Your task to perform on an android device: Add "razer nari" to the cart on walmart, then select checkout. Image 0: 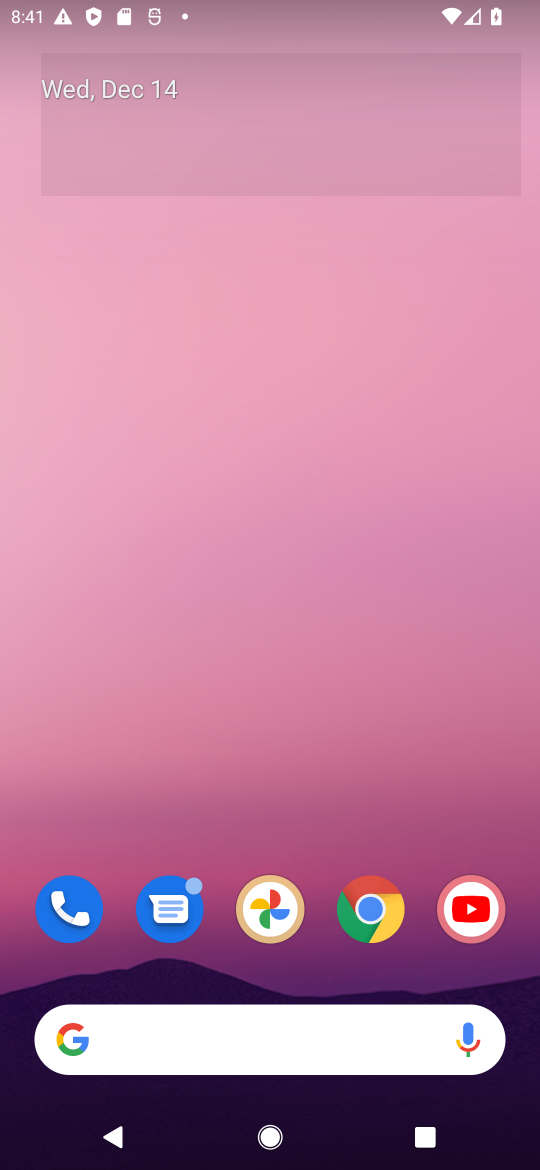
Step 0: click (385, 917)
Your task to perform on an android device: Add "razer nari" to the cart on walmart, then select checkout. Image 1: 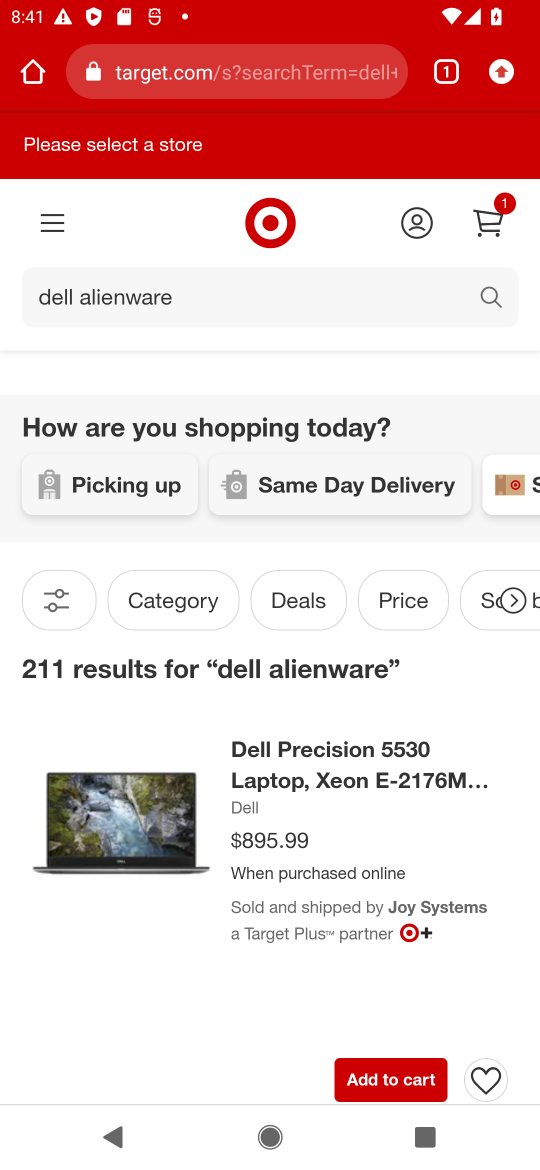
Step 1: click (239, 95)
Your task to perform on an android device: Add "razer nari" to the cart on walmart, then select checkout. Image 2: 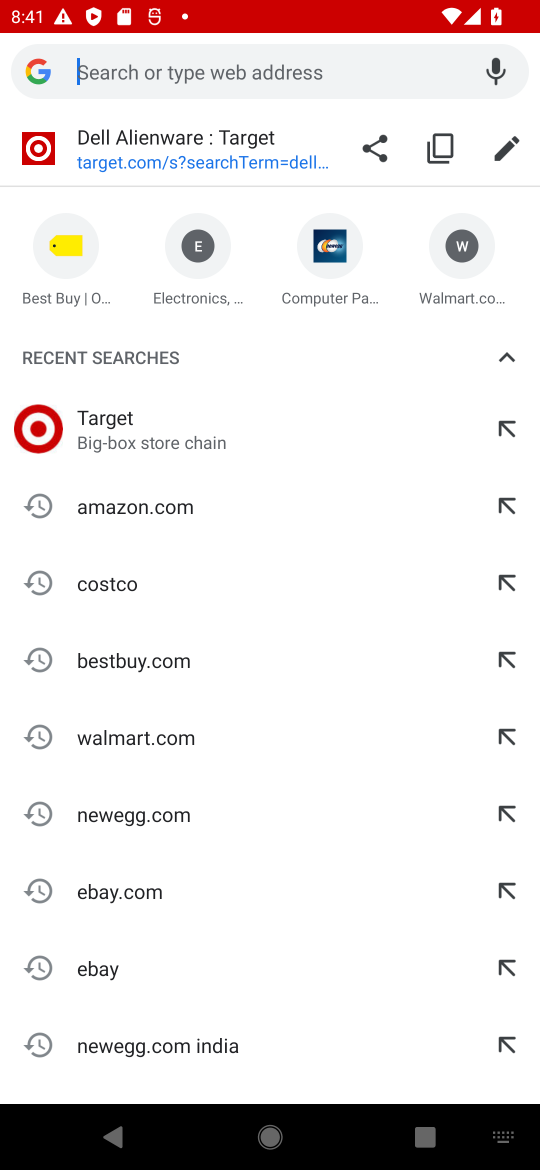
Step 2: type "walmart"
Your task to perform on an android device: Add "razer nari" to the cart on walmart, then select checkout. Image 3: 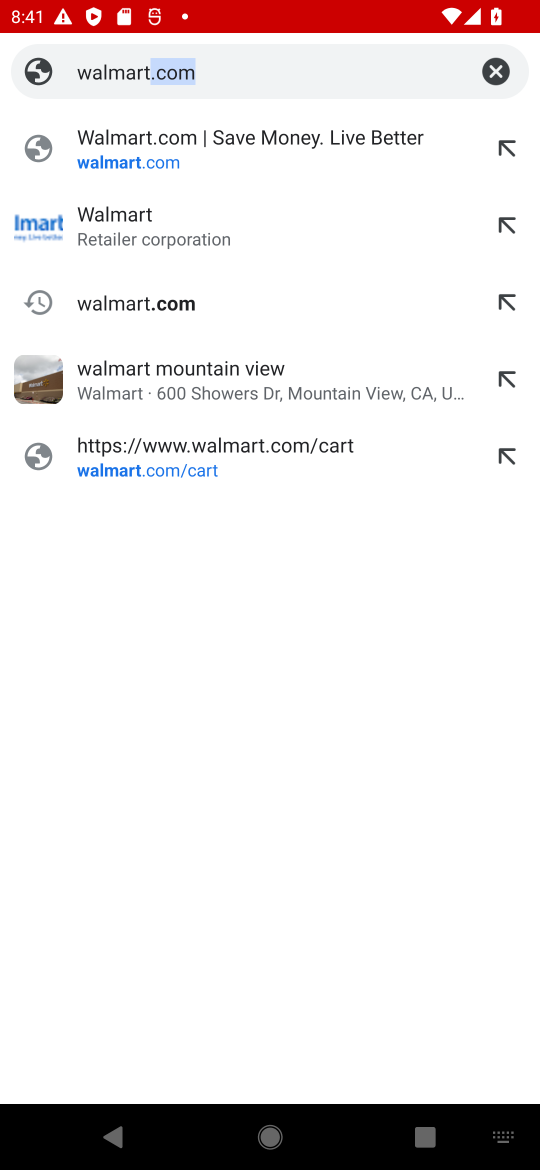
Step 3: click (215, 173)
Your task to perform on an android device: Add "razer nari" to the cart on walmart, then select checkout. Image 4: 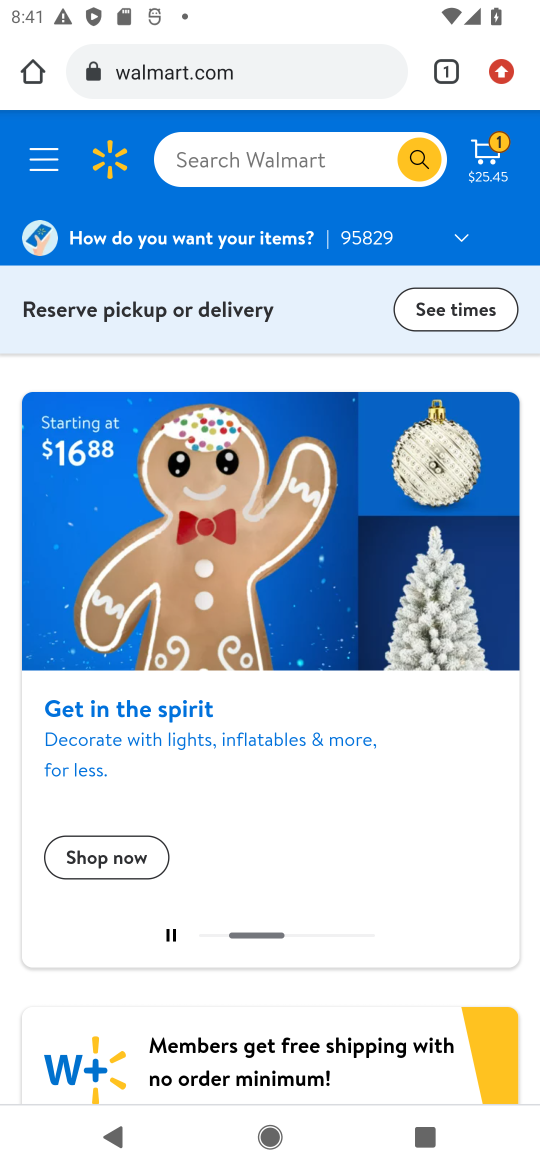
Step 4: click (288, 179)
Your task to perform on an android device: Add "razer nari" to the cart on walmart, then select checkout. Image 5: 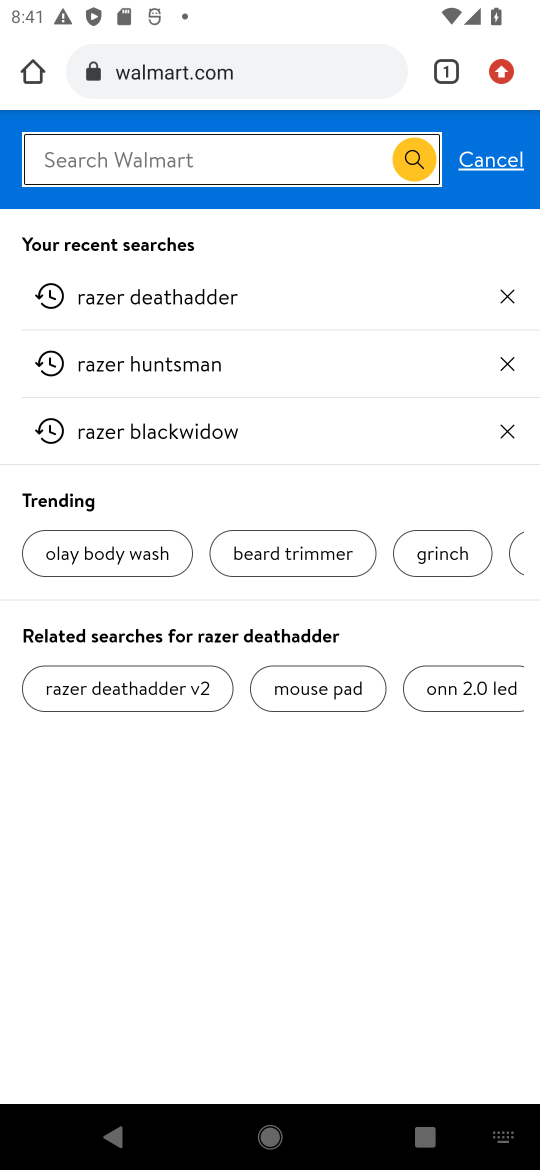
Step 5: type "razer nari"
Your task to perform on an android device: Add "razer nari" to the cart on walmart, then select checkout. Image 6: 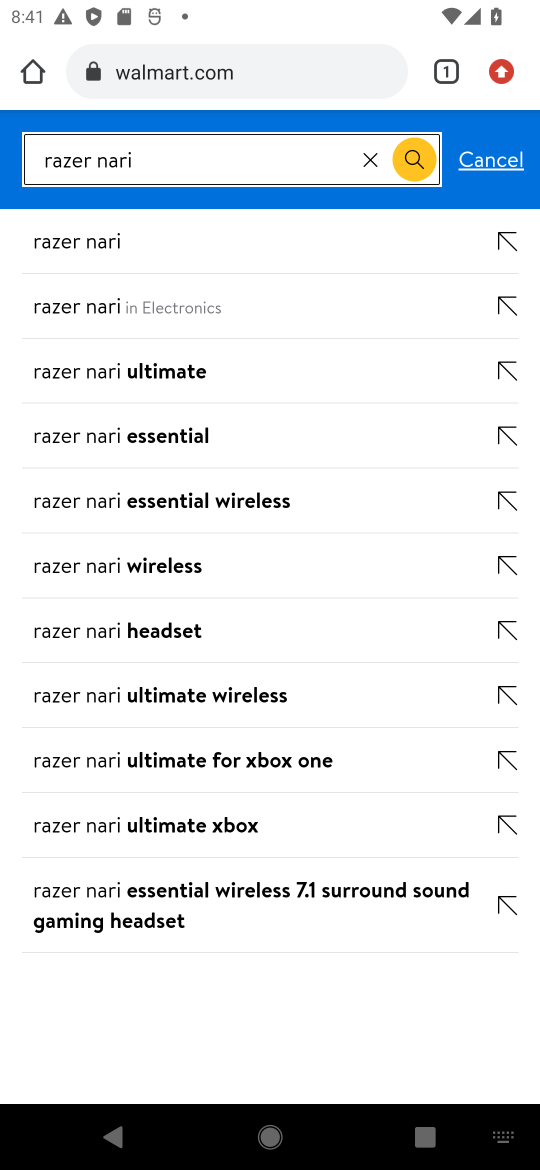
Step 6: press enter
Your task to perform on an android device: Add "razer nari" to the cart on walmart, then select checkout. Image 7: 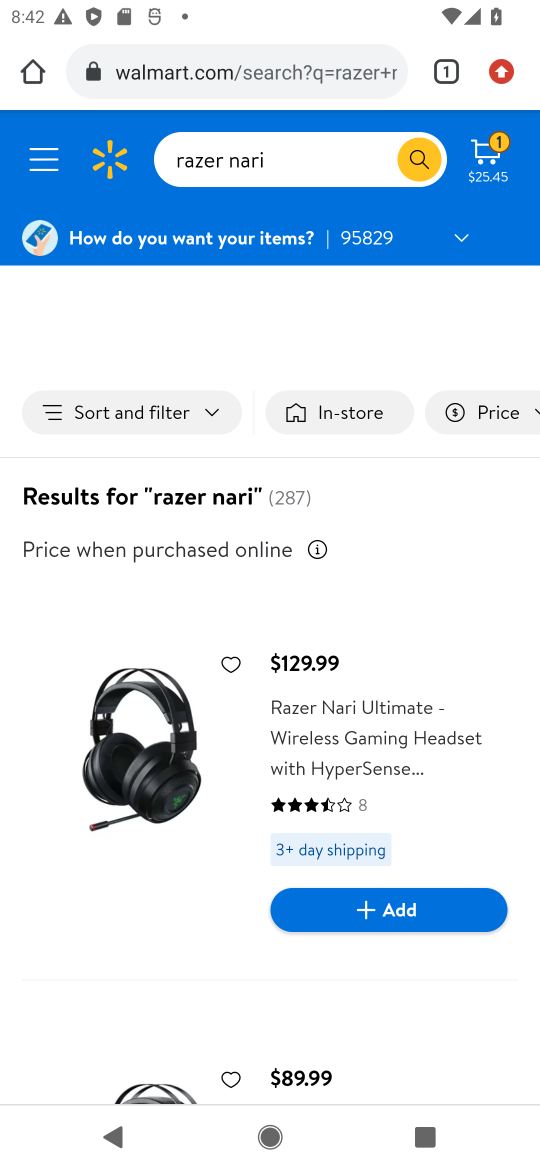
Step 7: click (343, 911)
Your task to perform on an android device: Add "razer nari" to the cart on walmart, then select checkout. Image 8: 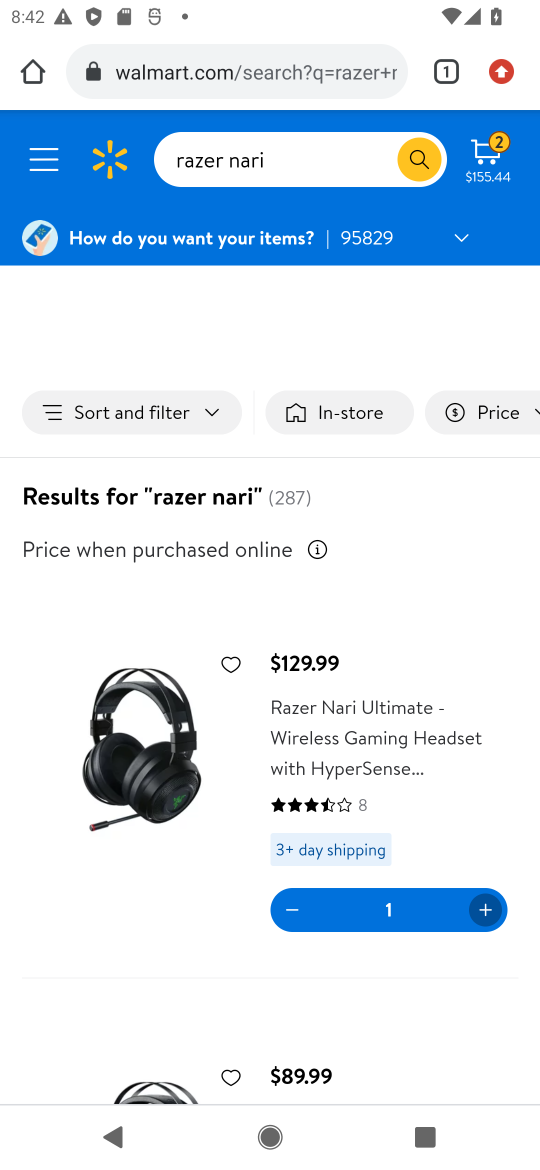
Step 8: task complete